Your task to perform on an android device: Show me popular videos on Youtube Image 0: 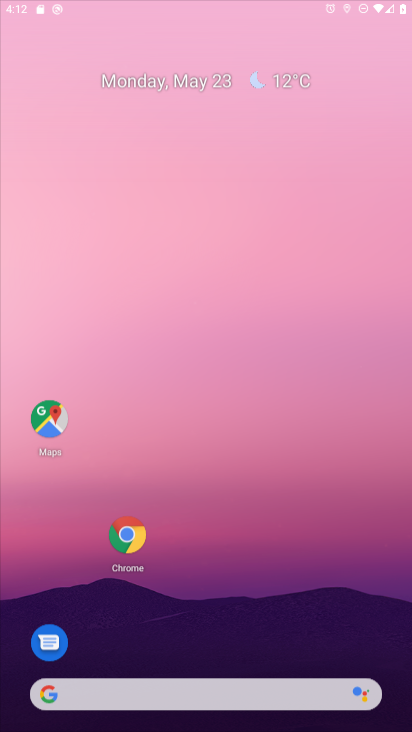
Step 0: drag from (298, 481) to (343, 121)
Your task to perform on an android device: Show me popular videos on Youtube Image 1: 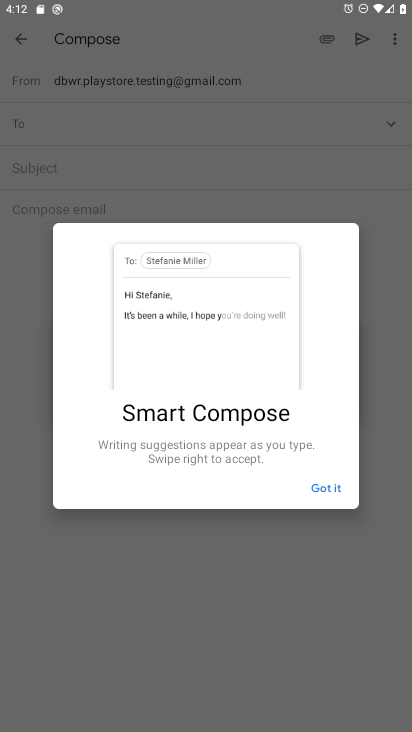
Step 1: press home button
Your task to perform on an android device: Show me popular videos on Youtube Image 2: 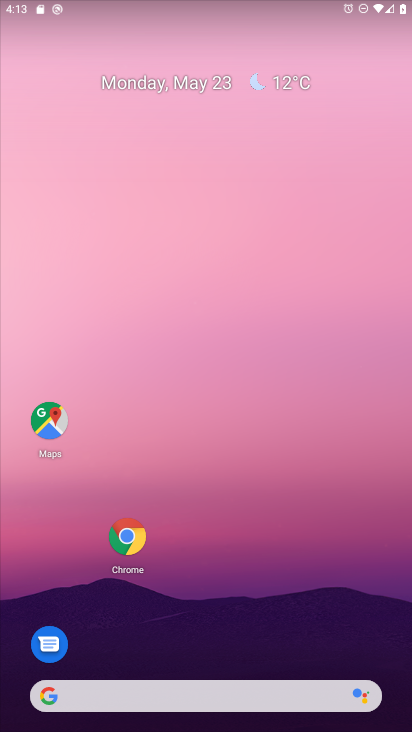
Step 2: drag from (212, 604) to (166, 76)
Your task to perform on an android device: Show me popular videos on Youtube Image 3: 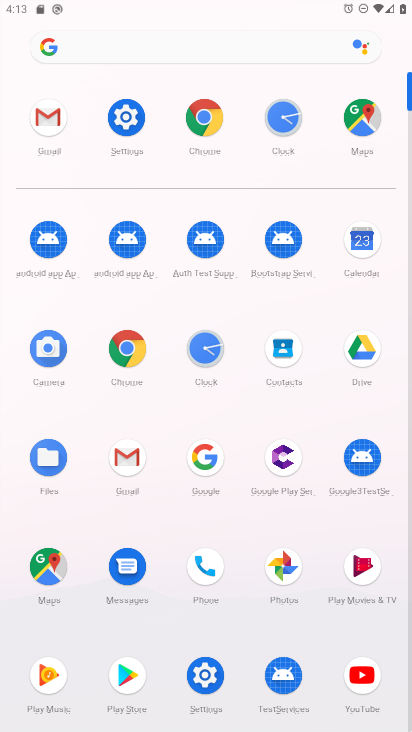
Step 3: click (357, 674)
Your task to perform on an android device: Show me popular videos on Youtube Image 4: 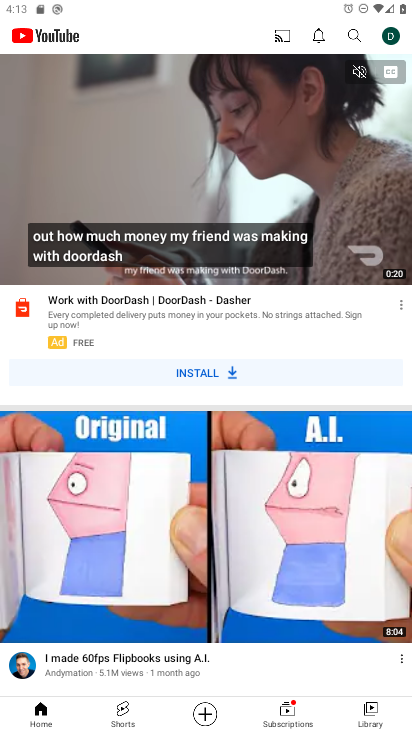
Step 4: click (30, 31)
Your task to perform on an android device: Show me popular videos on Youtube Image 5: 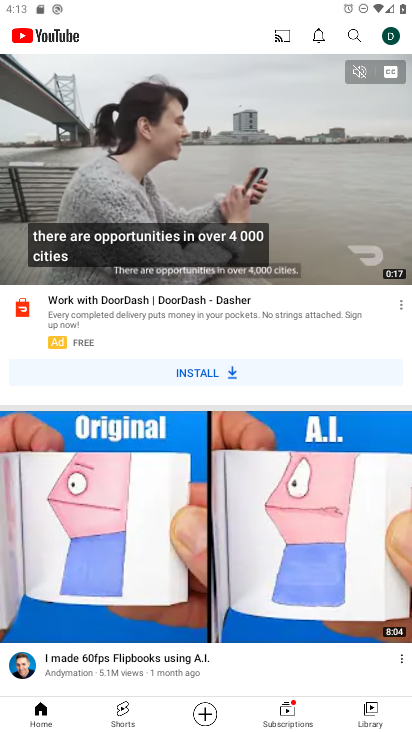
Step 5: click (44, 723)
Your task to perform on an android device: Show me popular videos on Youtube Image 6: 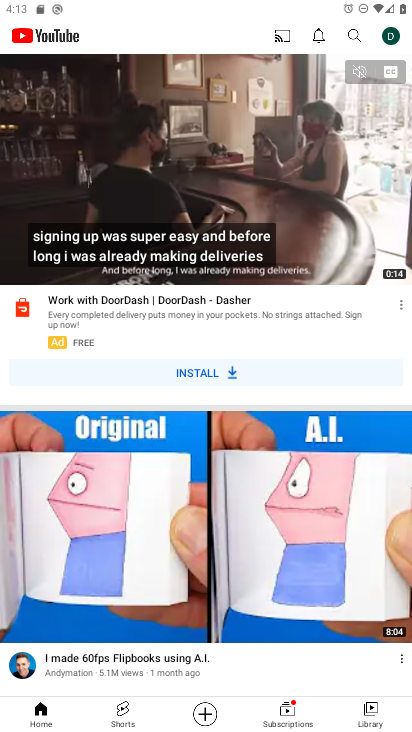
Step 6: drag from (170, 537) to (221, 114)
Your task to perform on an android device: Show me popular videos on Youtube Image 7: 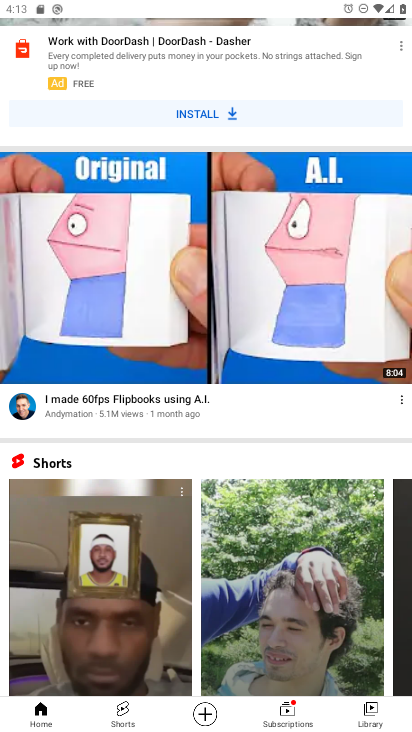
Step 7: drag from (211, 538) to (288, 62)
Your task to perform on an android device: Show me popular videos on Youtube Image 8: 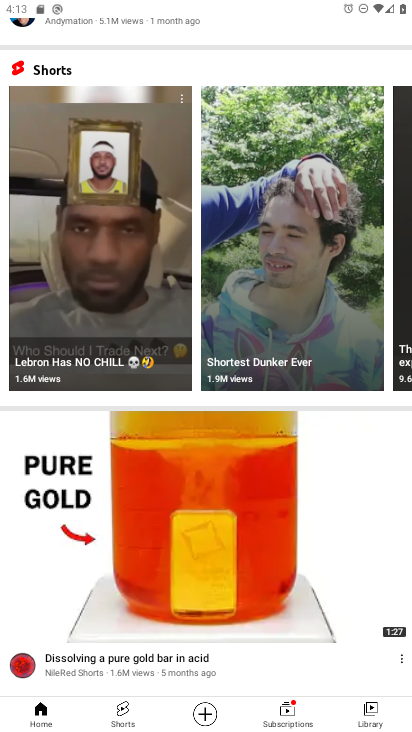
Step 8: drag from (218, 542) to (278, 143)
Your task to perform on an android device: Show me popular videos on Youtube Image 9: 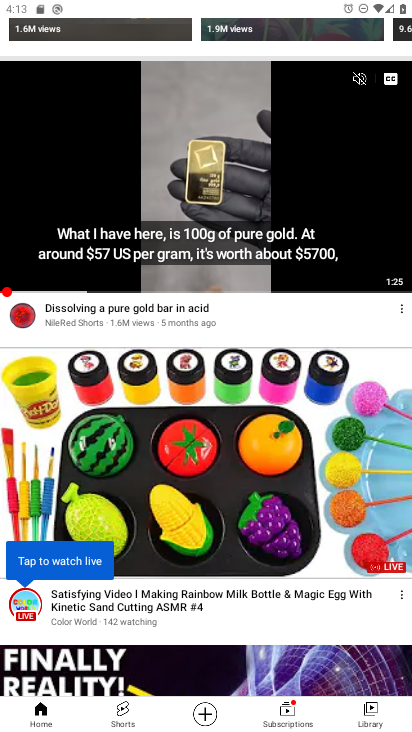
Step 9: click (297, 716)
Your task to perform on an android device: Show me popular videos on Youtube Image 10: 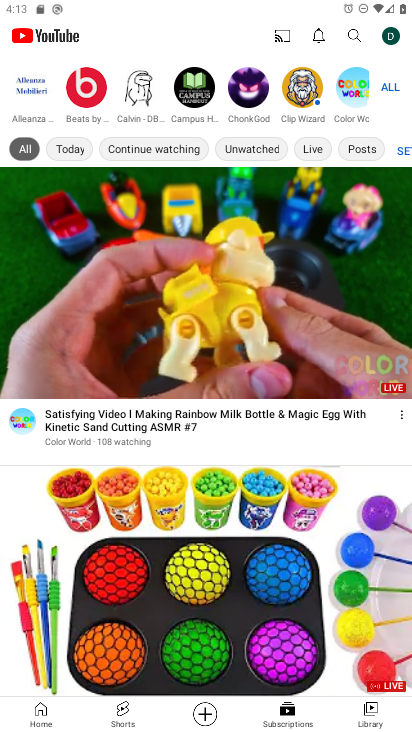
Step 10: click (369, 713)
Your task to perform on an android device: Show me popular videos on Youtube Image 11: 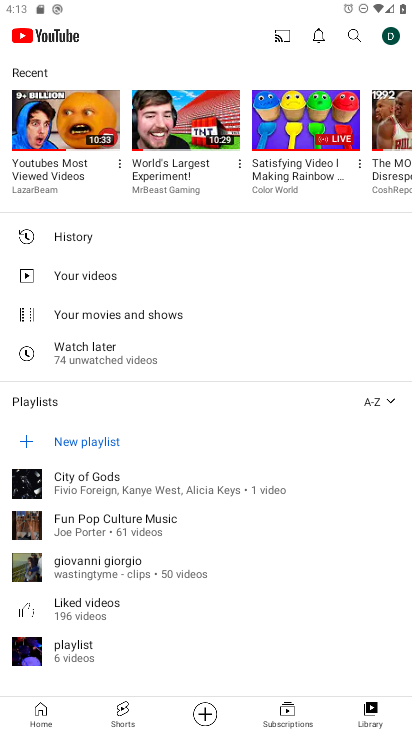
Step 11: drag from (195, 466) to (172, 521)
Your task to perform on an android device: Show me popular videos on Youtube Image 12: 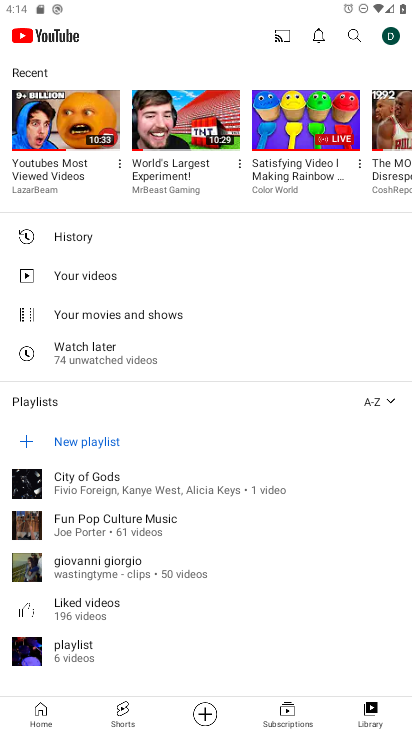
Step 12: click (45, 711)
Your task to perform on an android device: Show me popular videos on Youtube Image 13: 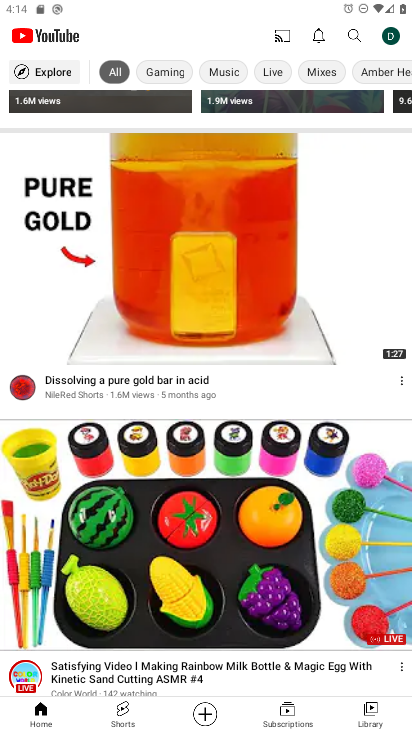
Step 13: click (143, 716)
Your task to perform on an android device: Show me popular videos on Youtube Image 14: 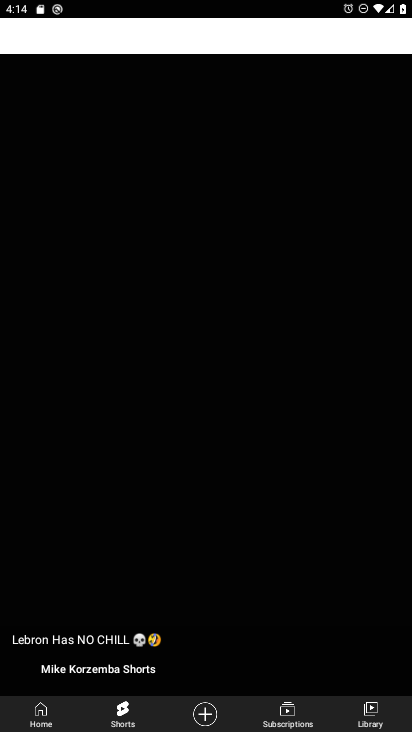
Step 14: click (40, 719)
Your task to perform on an android device: Show me popular videos on Youtube Image 15: 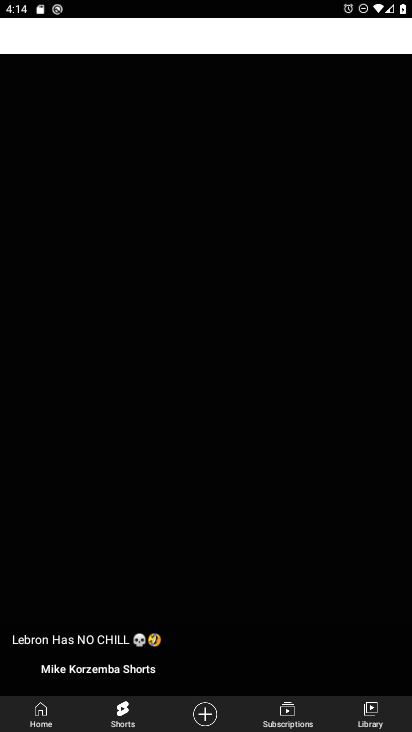
Step 15: click (40, 719)
Your task to perform on an android device: Show me popular videos on Youtube Image 16: 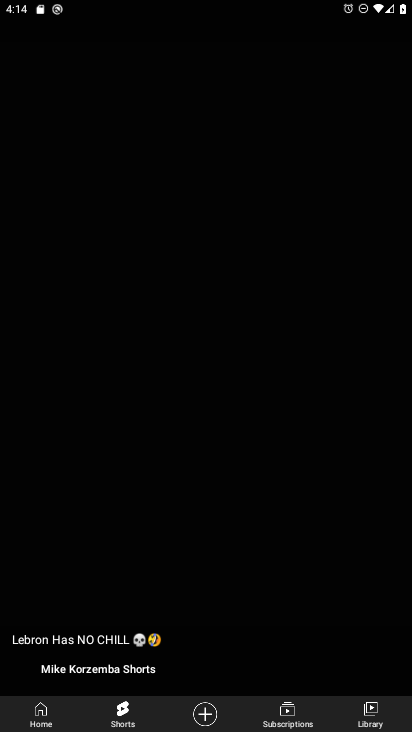
Step 16: click (40, 719)
Your task to perform on an android device: Show me popular videos on Youtube Image 17: 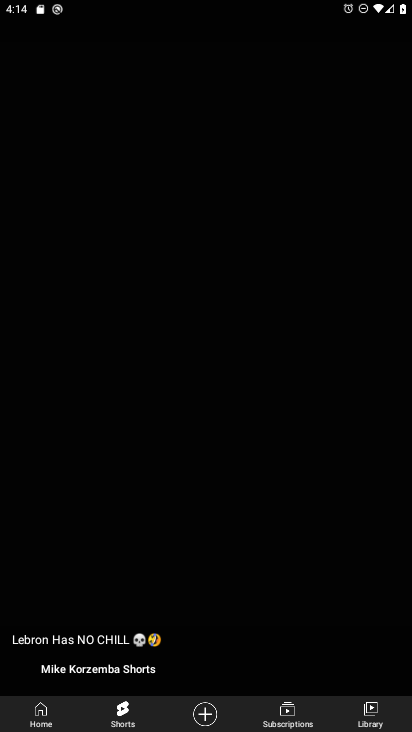
Step 17: click (40, 719)
Your task to perform on an android device: Show me popular videos on Youtube Image 18: 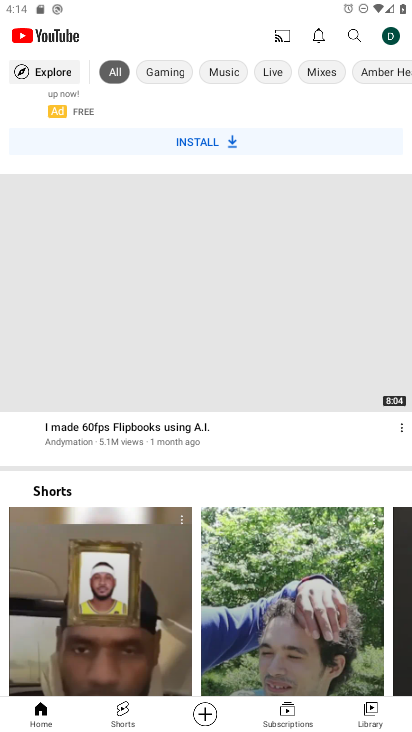
Step 18: click (30, 722)
Your task to perform on an android device: Show me popular videos on Youtube Image 19: 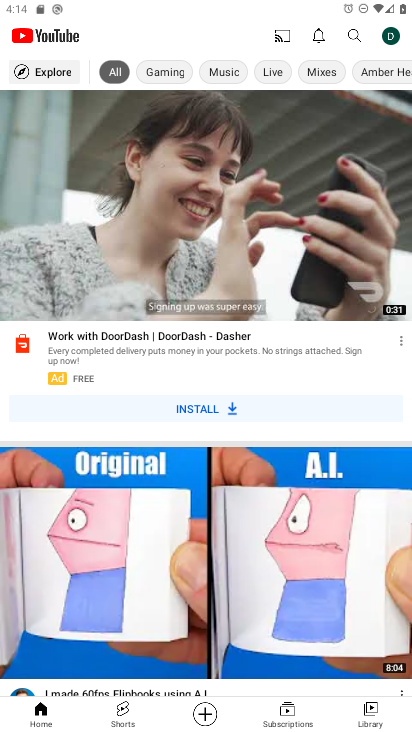
Step 19: drag from (359, 70) to (34, 74)
Your task to perform on an android device: Show me popular videos on Youtube Image 20: 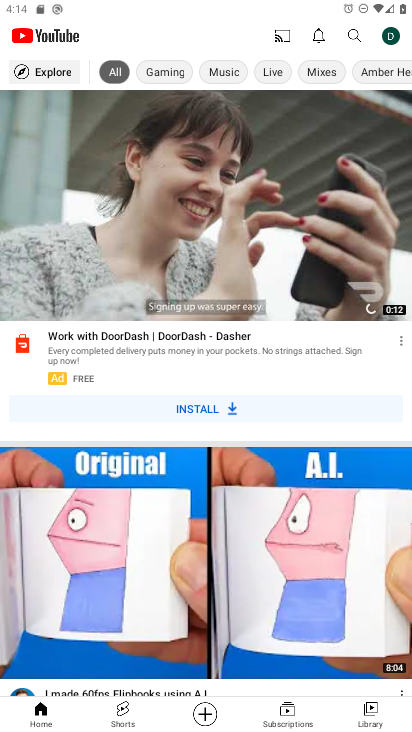
Step 20: drag from (348, 76) to (63, 34)
Your task to perform on an android device: Show me popular videos on Youtube Image 21: 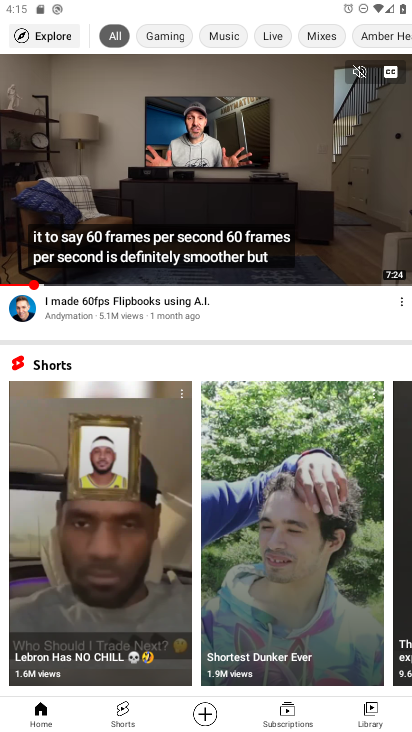
Step 21: click (36, 32)
Your task to perform on an android device: Show me popular videos on Youtube Image 22: 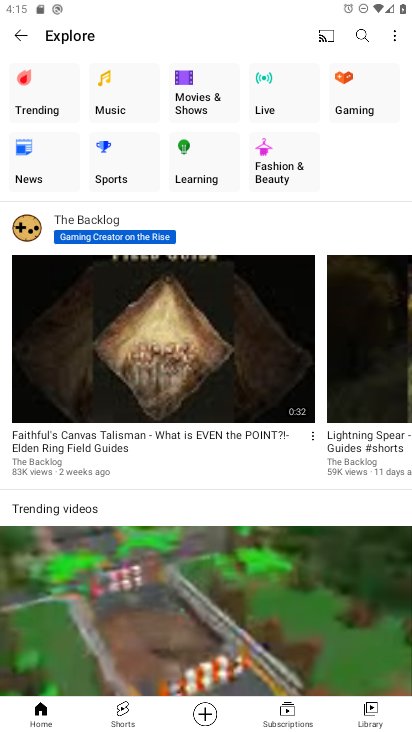
Step 22: click (31, 79)
Your task to perform on an android device: Show me popular videos on Youtube Image 23: 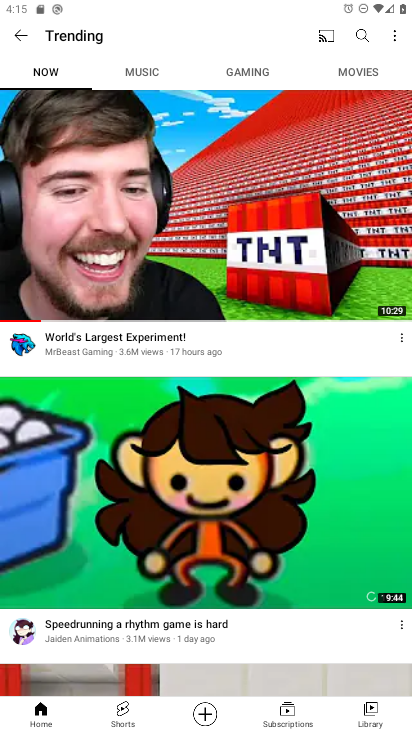
Step 23: task complete